Your task to perform on an android device: toggle notifications settings in the gmail app Image 0: 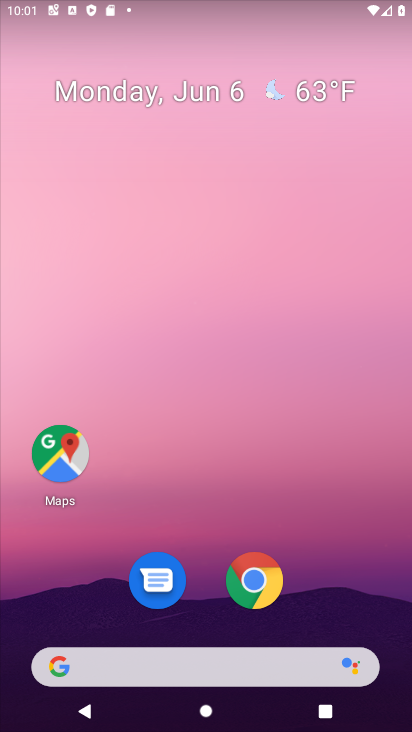
Step 0: click (340, 102)
Your task to perform on an android device: toggle notifications settings in the gmail app Image 1: 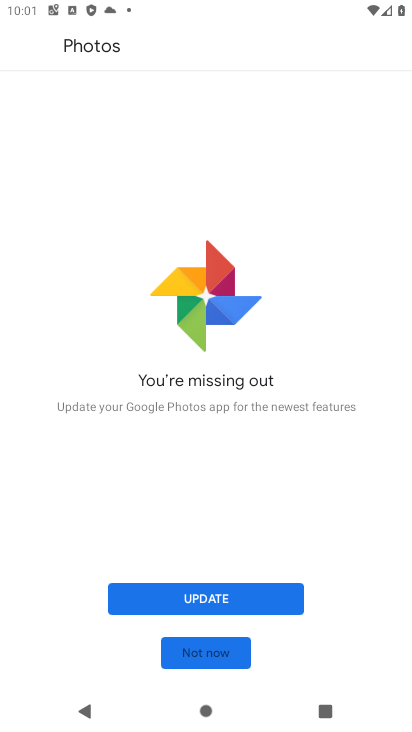
Step 1: press home button
Your task to perform on an android device: toggle notifications settings in the gmail app Image 2: 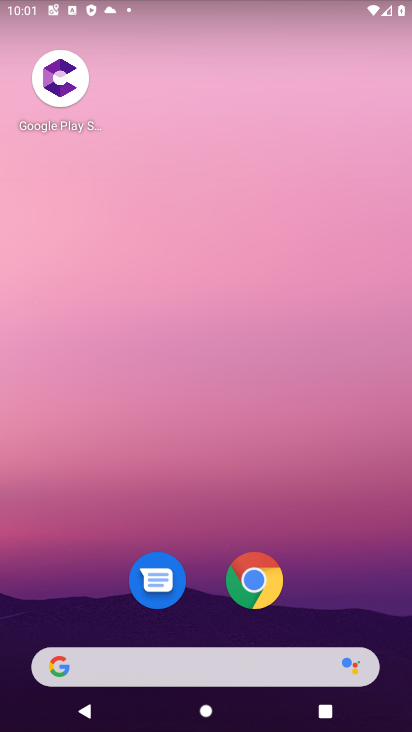
Step 2: drag from (325, 572) to (184, 13)
Your task to perform on an android device: toggle notifications settings in the gmail app Image 3: 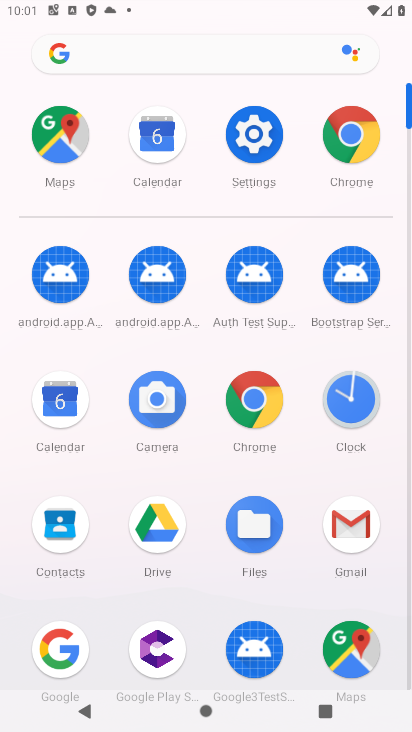
Step 3: click (358, 523)
Your task to perform on an android device: toggle notifications settings in the gmail app Image 4: 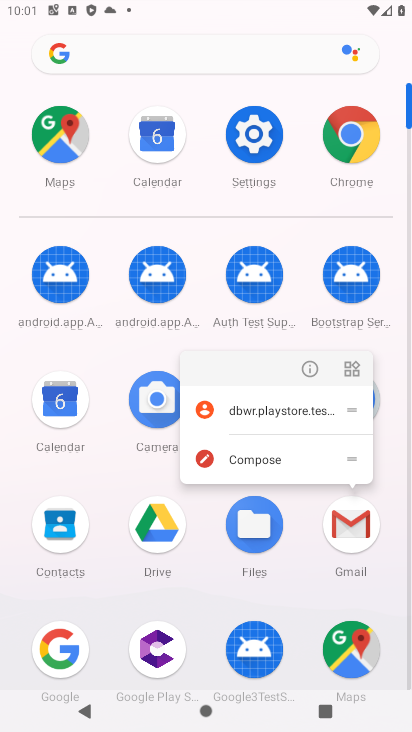
Step 4: click (358, 523)
Your task to perform on an android device: toggle notifications settings in the gmail app Image 5: 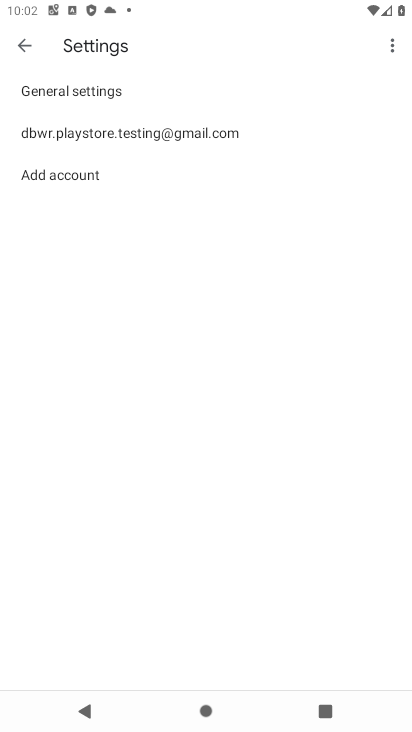
Step 5: click (23, 46)
Your task to perform on an android device: toggle notifications settings in the gmail app Image 6: 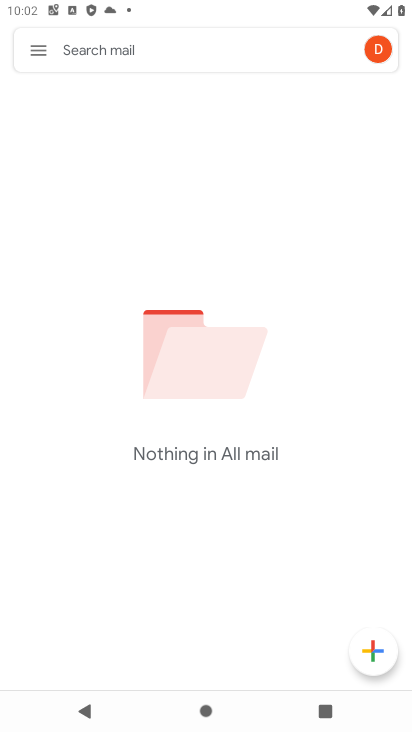
Step 6: click (23, 46)
Your task to perform on an android device: toggle notifications settings in the gmail app Image 7: 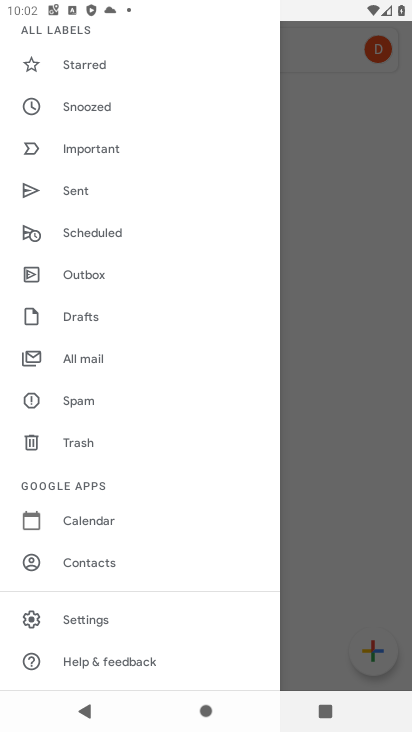
Step 7: click (65, 622)
Your task to perform on an android device: toggle notifications settings in the gmail app Image 8: 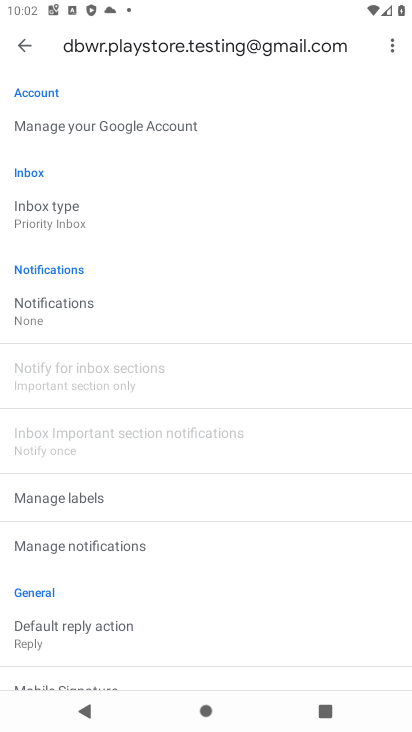
Step 8: click (47, 297)
Your task to perform on an android device: toggle notifications settings in the gmail app Image 9: 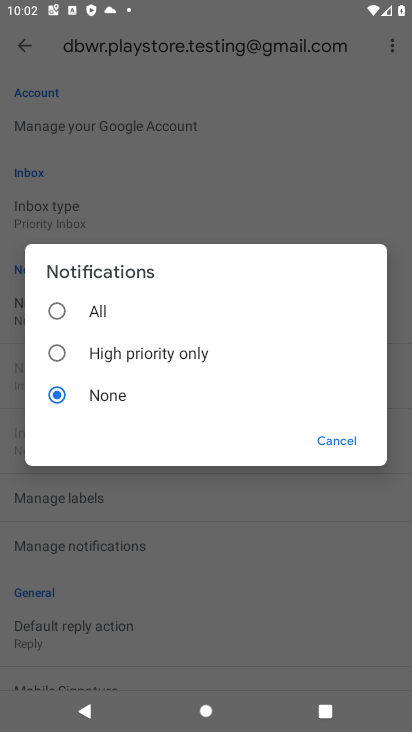
Step 9: click (97, 357)
Your task to perform on an android device: toggle notifications settings in the gmail app Image 10: 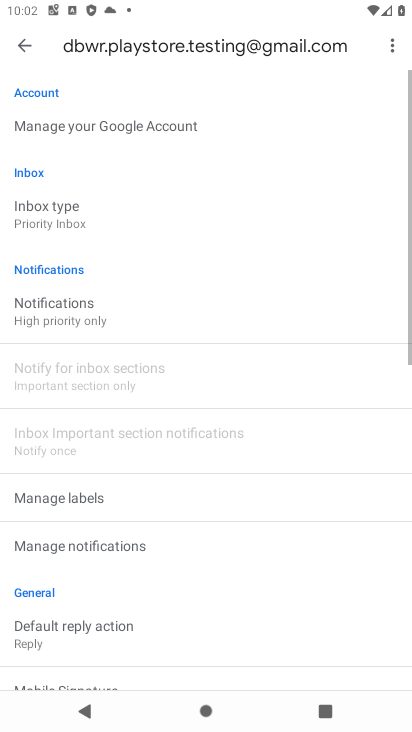
Step 10: task complete